Your task to perform on an android device: change notifications settings Image 0: 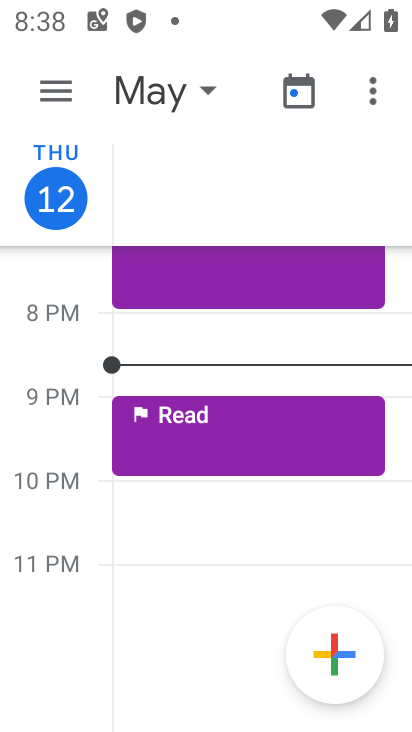
Step 0: press home button
Your task to perform on an android device: change notifications settings Image 1: 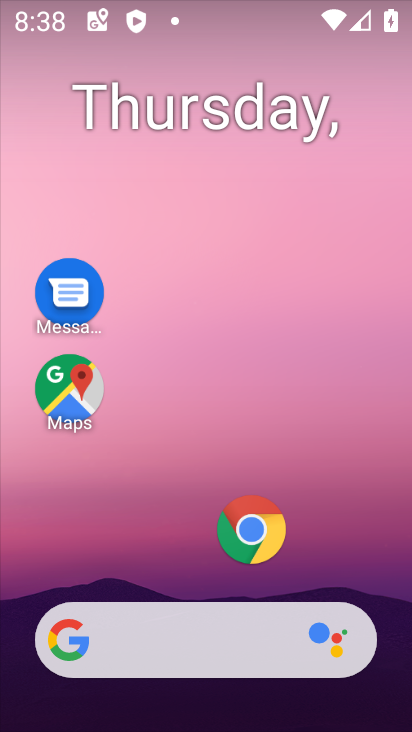
Step 1: drag from (136, 566) to (204, 40)
Your task to perform on an android device: change notifications settings Image 2: 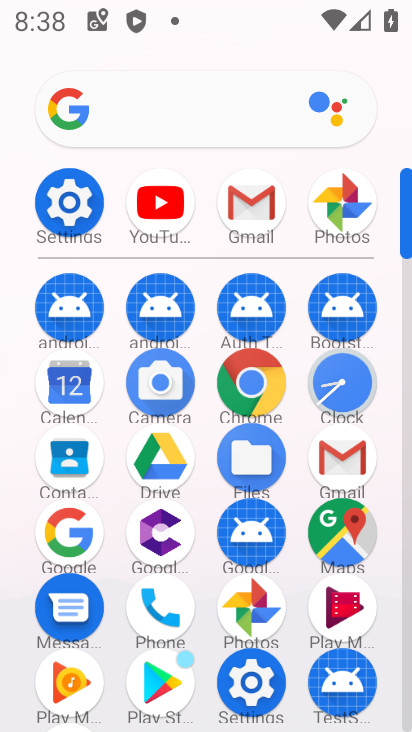
Step 2: click (78, 192)
Your task to perform on an android device: change notifications settings Image 3: 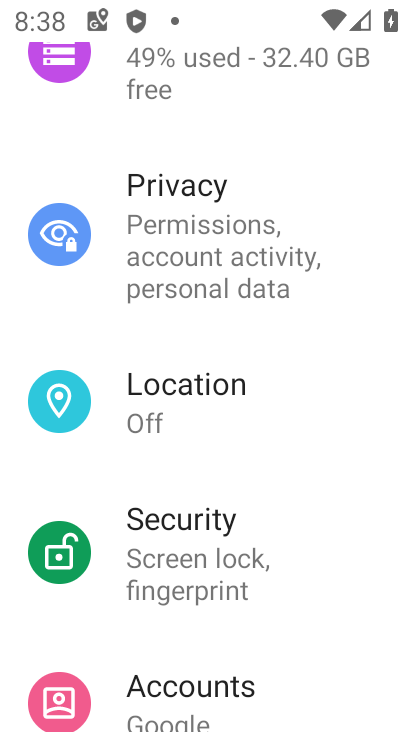
Step 3: drag from (251, 190) to (257, 645)
Your task to perform on an android device: change notifications settings Image 4: 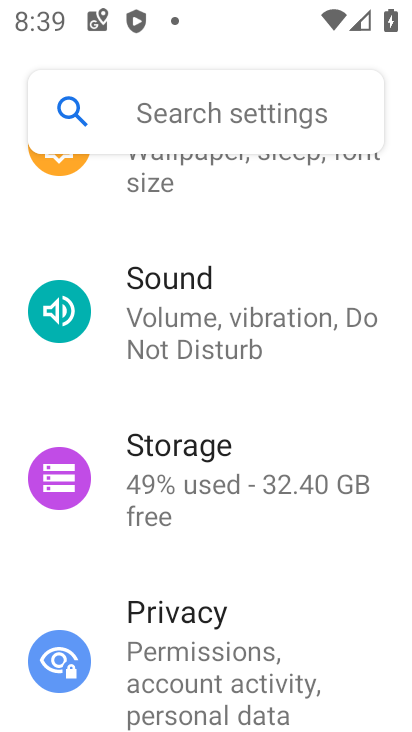
Step 4: drag from (269, 193) to (292, 547)
Your task to perform on an android device: change notifications settings Image 5: 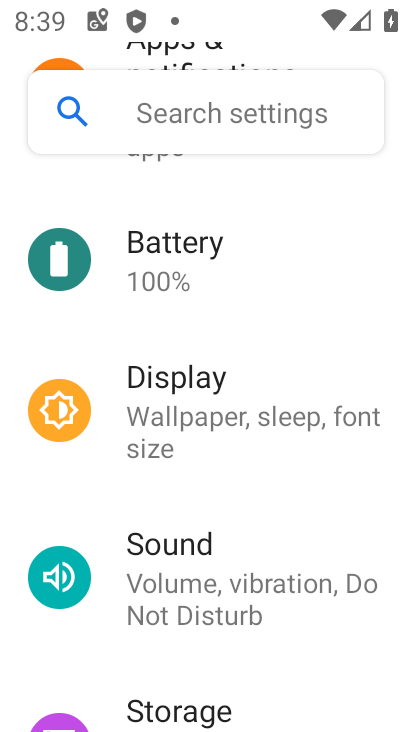
Step 5: drag from (249, 227) to (279, 643)
Your task to perform on an android device: change notifications settings Image 6: 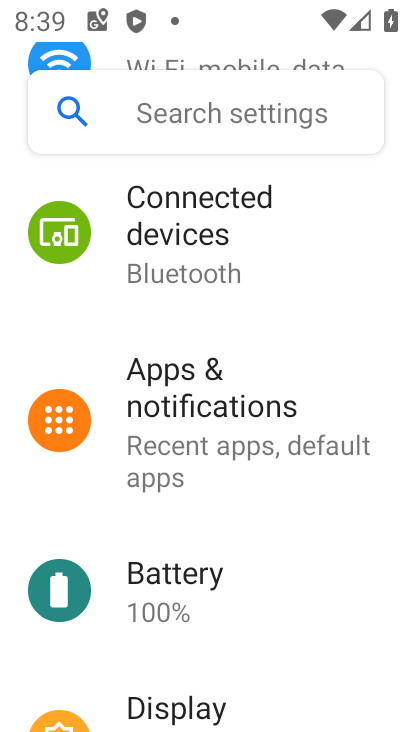
Step 6: click (209, 429)
Your task to perform on an android device: change notifications settings Image 7: 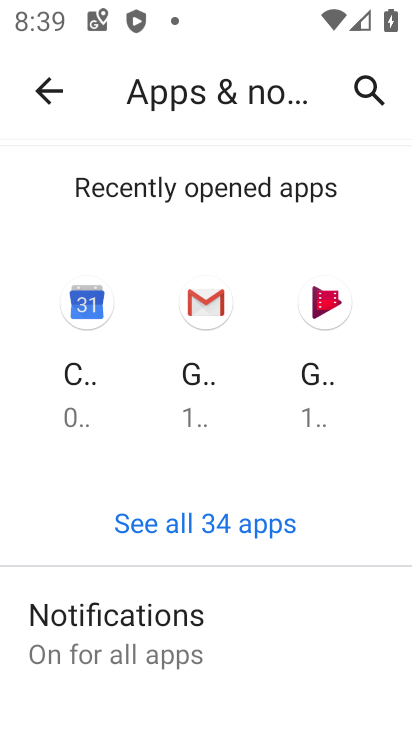
Step 7: click (108, 627)
Your task to perform on an android device: change notifications settings Image 8: 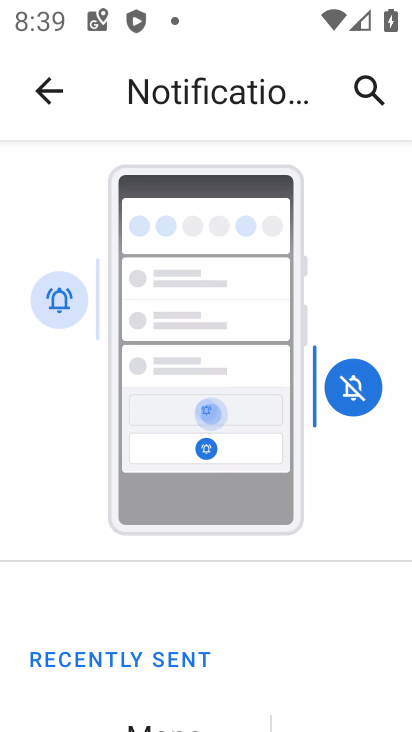
Step 8: drag from (108, 627) to (163, 136)
Your task to perform on an android device: change notifications settings Image 9: 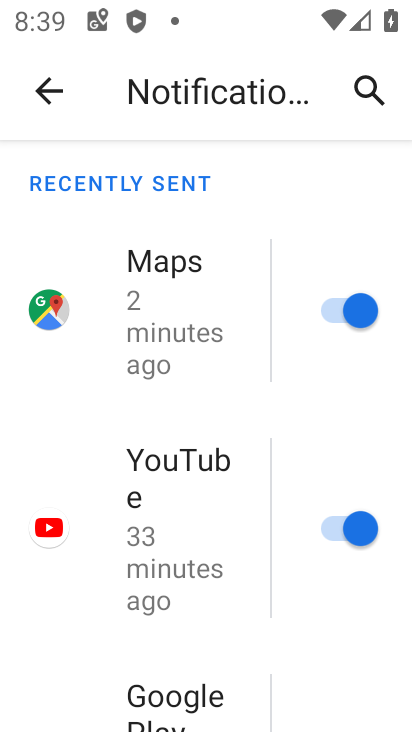
Step 9: drag from (108, 700) to (196, 187)
Your task to perform on an android device: change notifications settings Image 10: 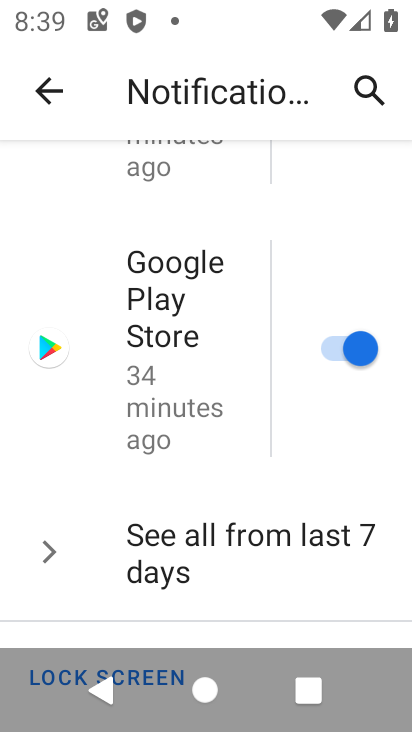
Step 10: drag from (142, 573) to (206, 230)
Your task to perform on an android device: change notifications settings Image 11: 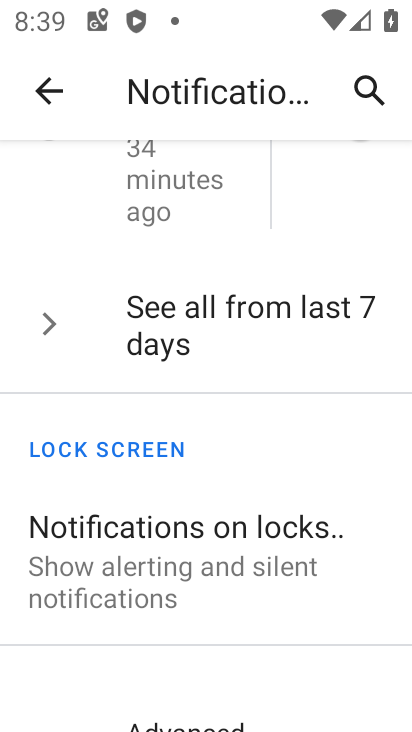
Step 11: drag from (164, 611) to (254, 250)
Your task to perform on an android device: change notifications settings Image 12: 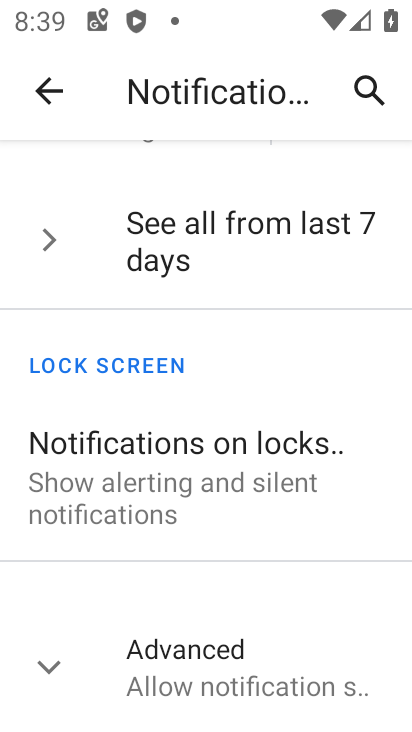
Step 12: click (207, 656)
Your task to perform on an android device: change notifications settings Image 13: 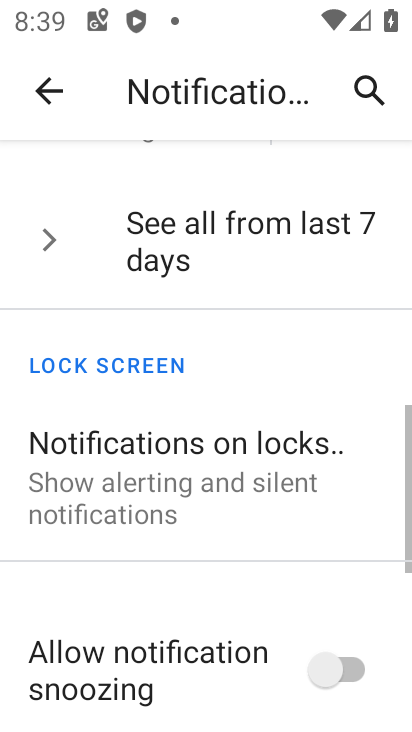
Step 13: drag from (207, 656) to (315, 231)
Your task to perform on an android device: change notifications settings Image 14: 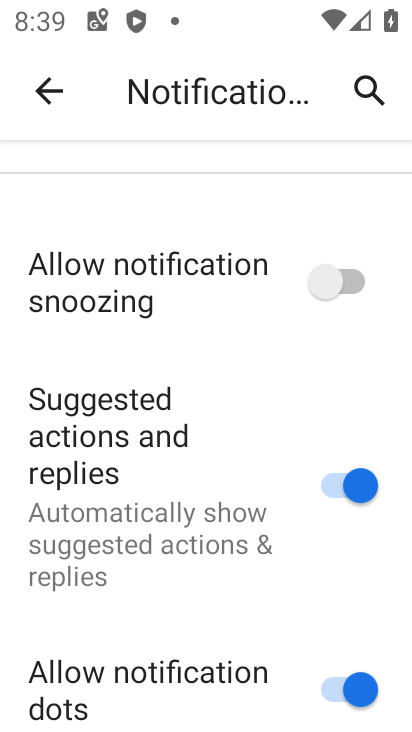
Step 14: click (364, 280)
Your task to perform on an android device: change notifications settings Image 15: 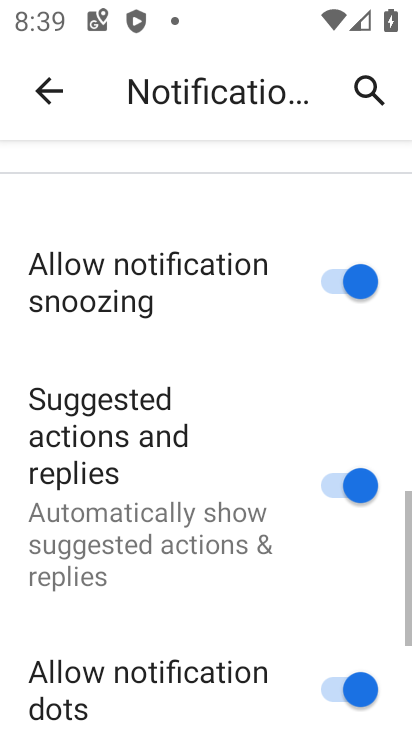
Step 15: click (346, 471)
Your task to perform on an android device: change notifications settings Image 16: 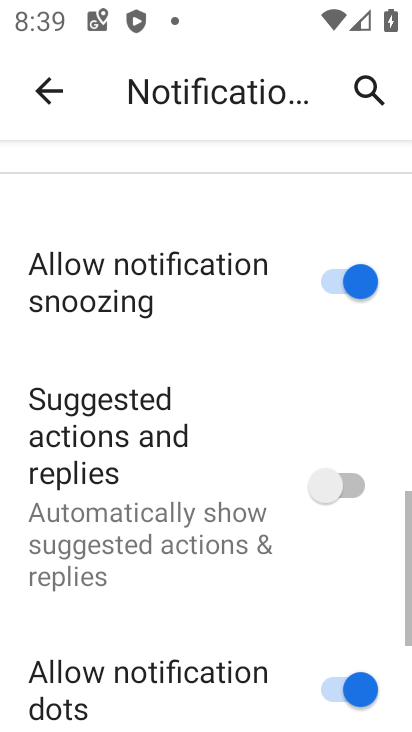
Step 16: click (365, 697)
Your task to perform on an android device: change notifications settings Image 17: 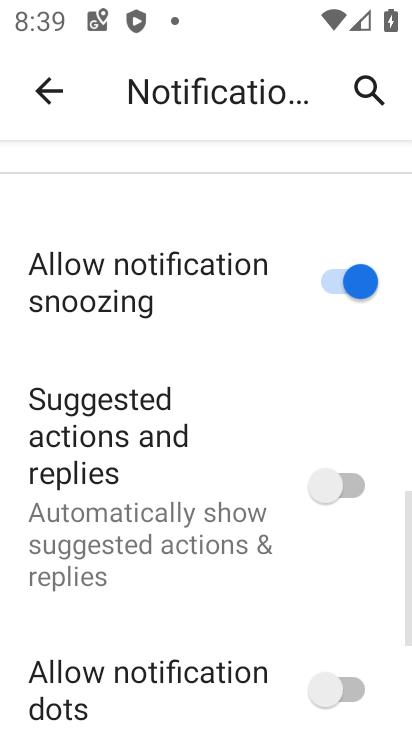
Step 17: task complete